Your task to perform on an android device: read, delete, or share a saved page in the chrome app Image 0: 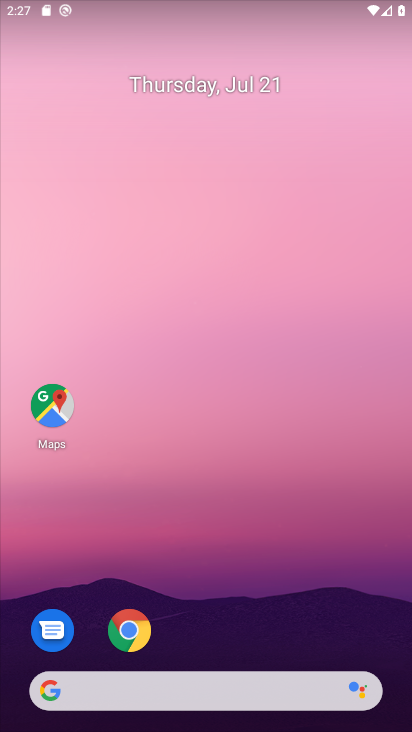
Step 0: drag from (253, 604) to (196, 308)
Your task to perform on an android device: read, delete, or share a saved page in the chrome app Image 1: 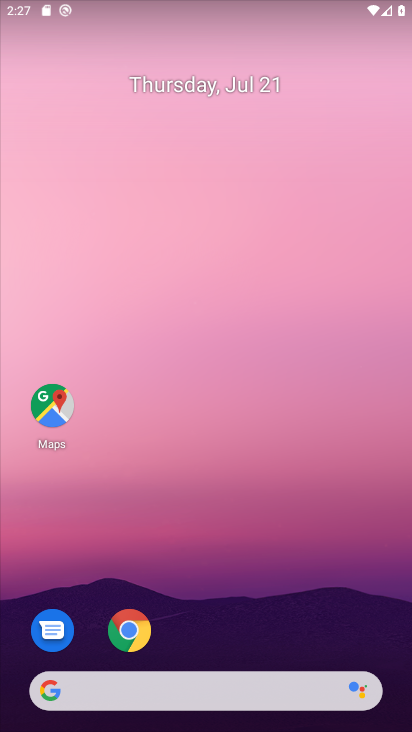
Step 1: drag from (149, 623) to (149, 110)
Your task to perform on an android device: read, delete, or share a saved page in the chrome app Image 2: 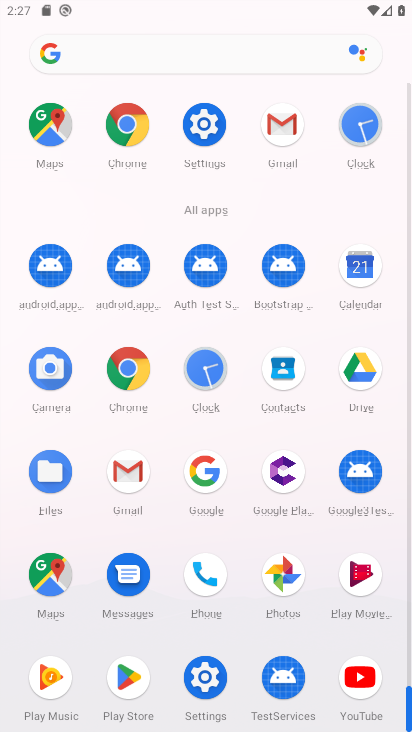
Step 2: click (205, 132)
Your task to perform on an android device: read, delete, or share a saved page in the chrome app Image 3: 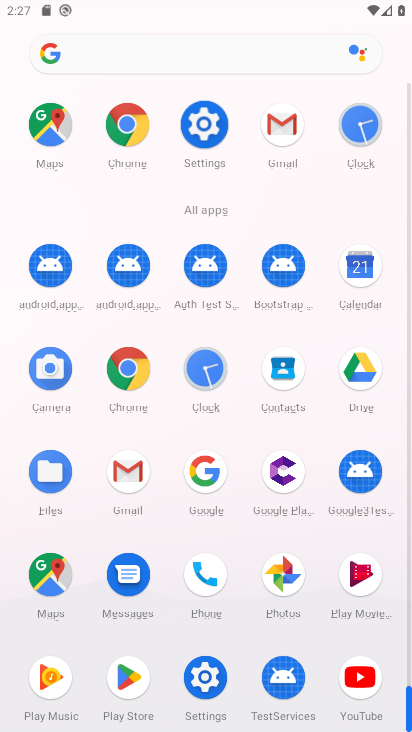
Step 3: click (205, 132)
Your task to perform on an android device: read, delete, or share a saved page in the chrome app Image 4: 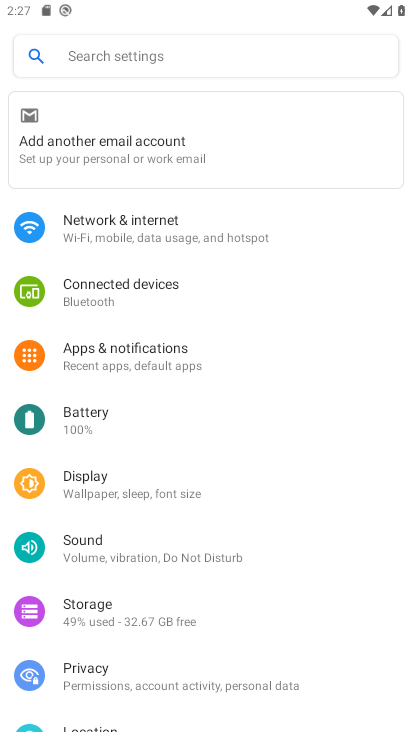
Step 4: press back button
Your task to perform on an android device: read, delete, or share a saved page in the chrome app Image 5: 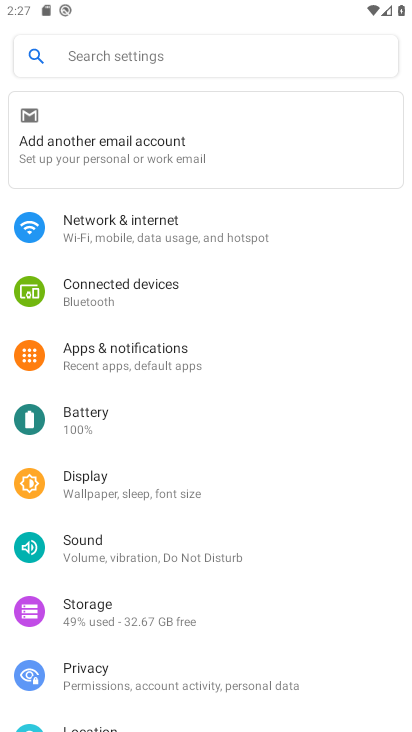
Step 5: press back button
Your task to perform on an android device: read, delete, or share a saved page in the chrome app Image 6: 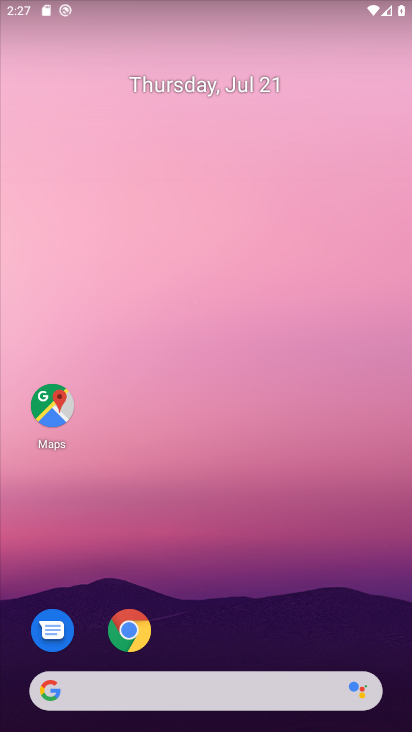
Step 6: drag from (248, 497) to (179, 98)
Your task to perform on an android device: read, delete, or share a saved page in the chrome app Image 7: 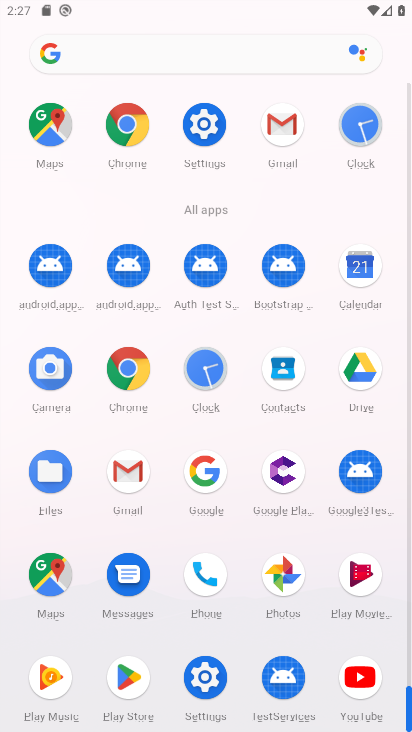
Step 7: click (122, 120)
Your task to perform on an android device: read, delete, or share a saved page in the chrome app Image 8: 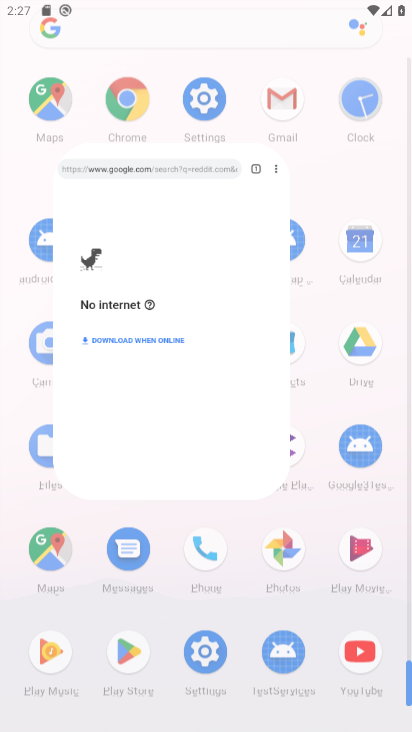
Step 8: click (124, 118)
Your task to perform on an android device: read, delete, or share a saved page in the chrome app Image 9: 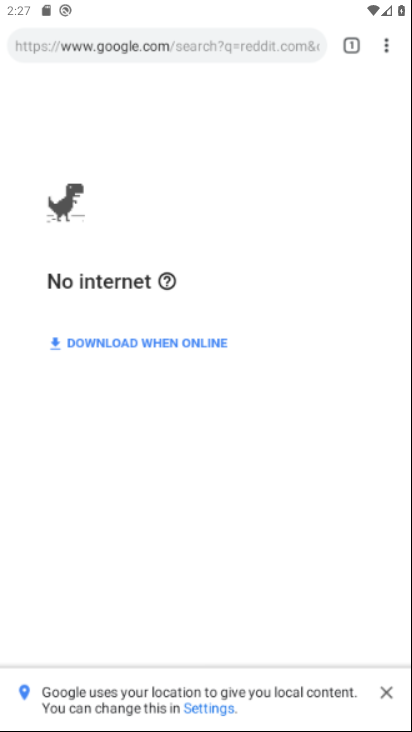
Step 9: click (124, 118)
Your task to perform on an android device: read, delete, or share a saved page in the chrome app Image 10: 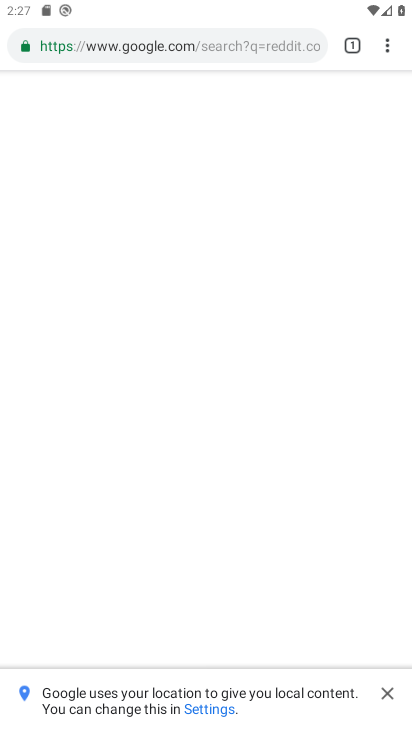
Step 10: drag from (386, 46) to (228, 87)
Your task to perform on an android device: read, delete, or share a saved page in the chrome app Image 11: 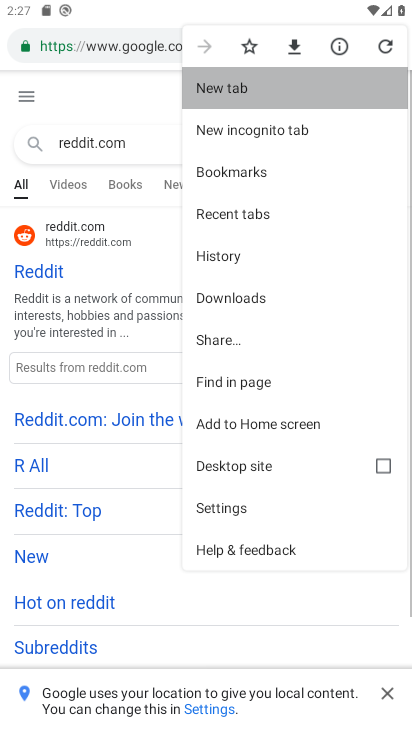
Step 11: click (224, 86)
Your task to perform on an android device: read, delete, or share a saved page in the chrome app Image 12: 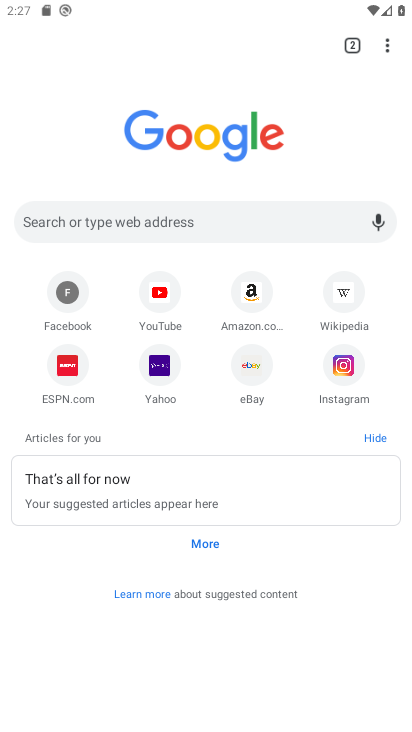
Step 12: drag from (388, 48) to (218, 298)
Your task to perform on an android device: read, delete, or share a saved page in the chrome app Image 13: 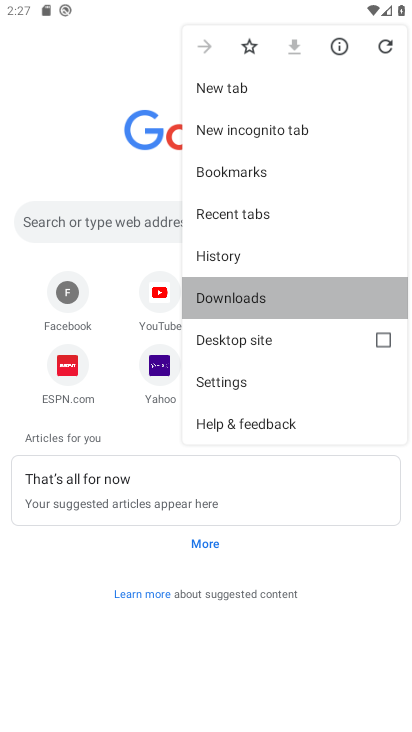
Step 13: click (224, 298)
Your task to perform on an android device: read, delete, or share a saved page in the chrome app Image 14: 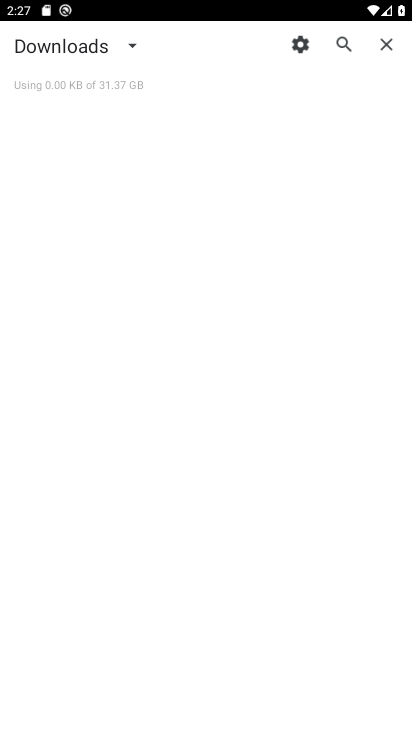
Step 14: click (128, 47)
Your task to perform on an android device: read, delete, or share a saved page in the chrome app Image 15: 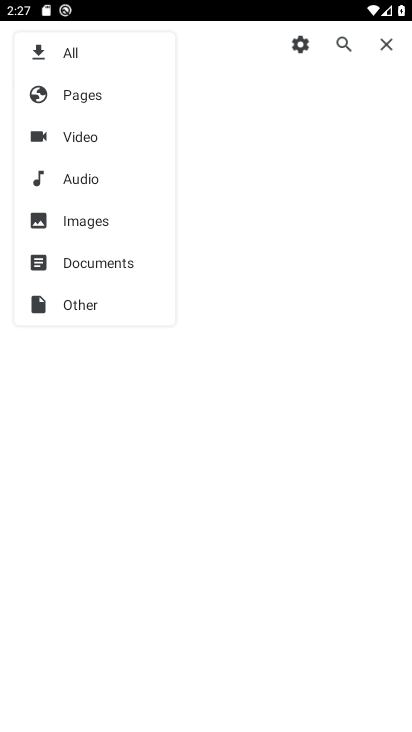
Step 15: click (80, 123)
Your task to perform on an android device: read, delete, or share a saved page in the chrome app Image 16: 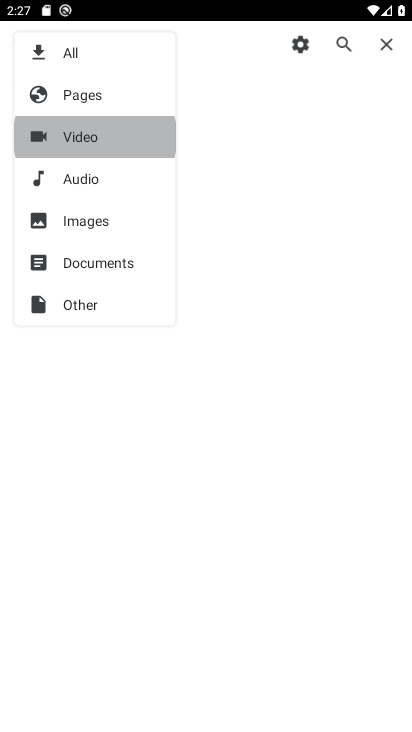
Step 16: click (80, 124)
Your task to perform on an android device: read, delete, or share a saved page in the chrome app Image 17: 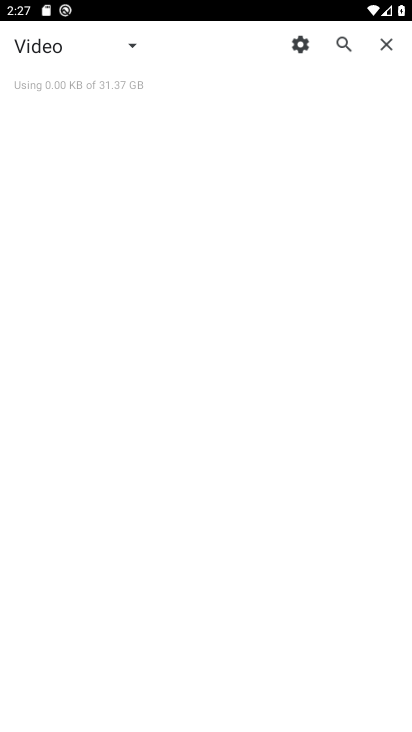
Step 17: task complete